Your task to perform on an android device: Open calendar and show me the third week of next month Image 0: 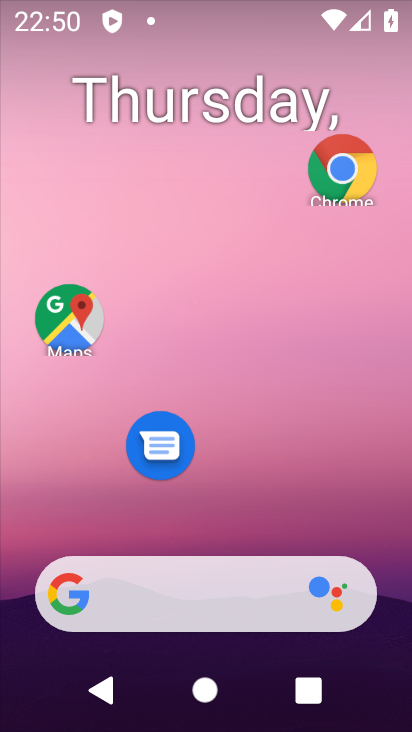
Step 0: drag from (214, 529) to (201, 129)
Your task to perform on an android device: Open calendar and show me the third week of next month Image 1: 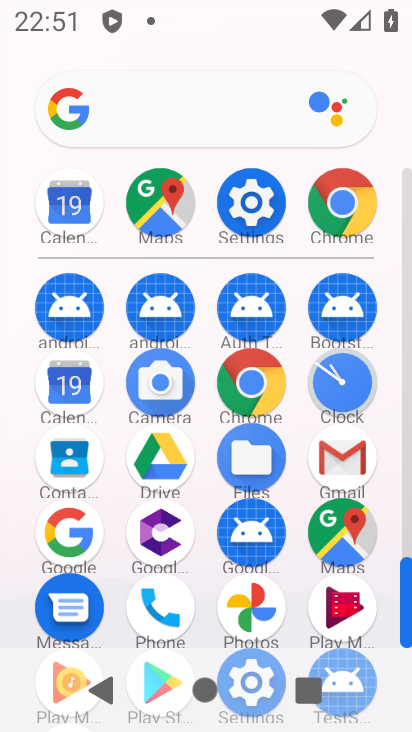
Step 1: click (69, 393)
Your task to perform on an android device: Open calendar and show me the third week of next month Image 2: 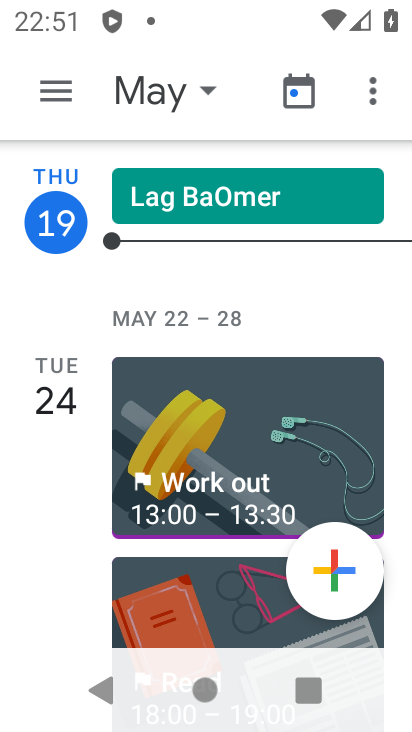
Step 2: drag from (248, 607) to (237, 232)
Your task to perform on an android device: Open calendar and show me the third week of next month Image 3: 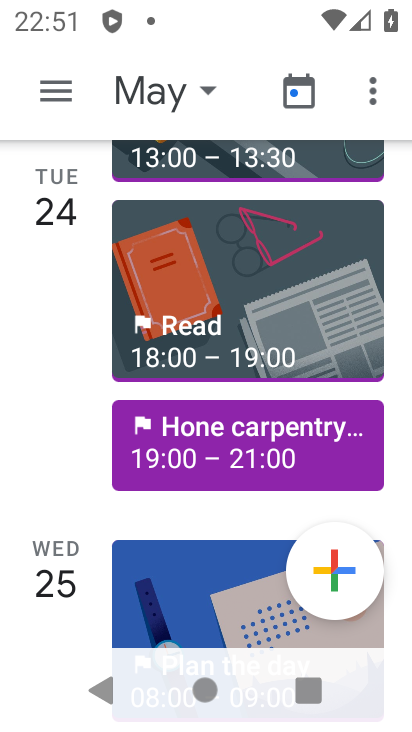
Step 3: drag from (230, 587) to (242, 81)
Your task to perform on an android device: Open calendar and show me the third week of next month Image 4: 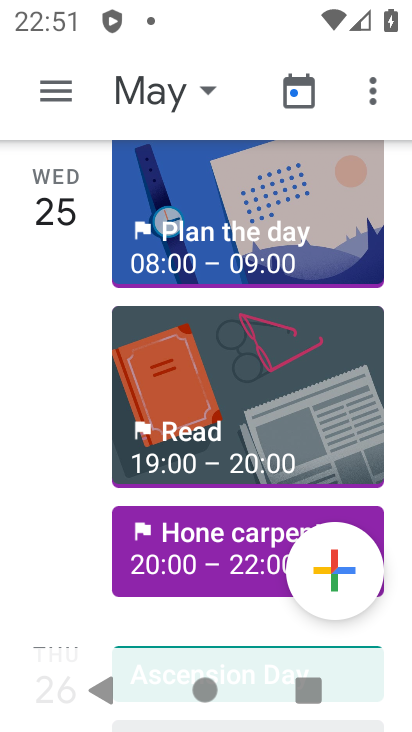
Step 4: click (190, 98)
Your task to perform on an android device: Open calendar and show me the third week of next month Image 5: 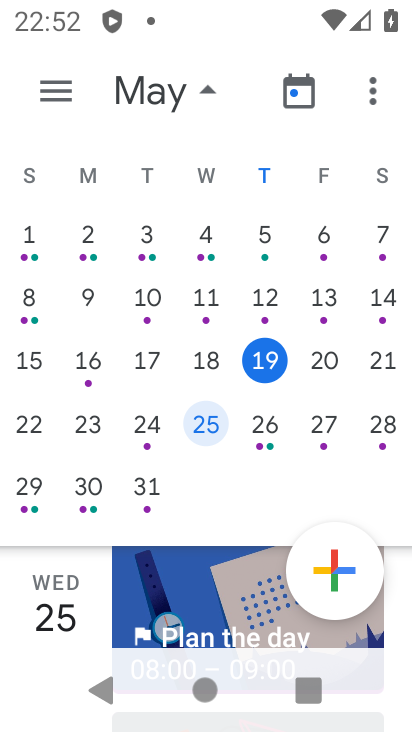
Step 5: drag from (389, 371) to (0, 386)
Your task to perform on an android device: Open calendar and show me the third week of next month Image 6: 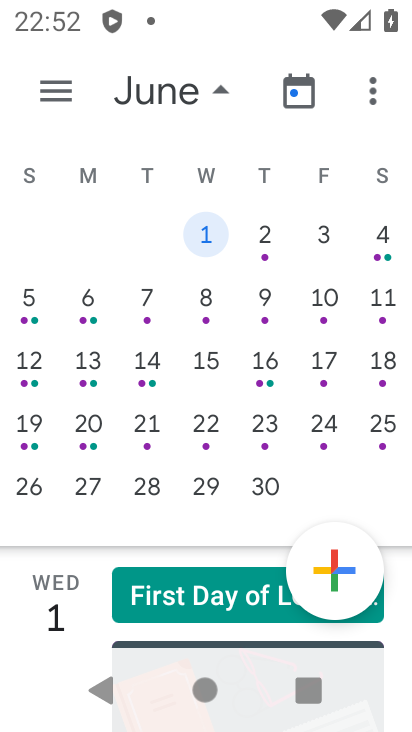
Step 6: click (276, 365)
Your task to perform on an android device: Open calendar and show me the third week of next month Image 7: 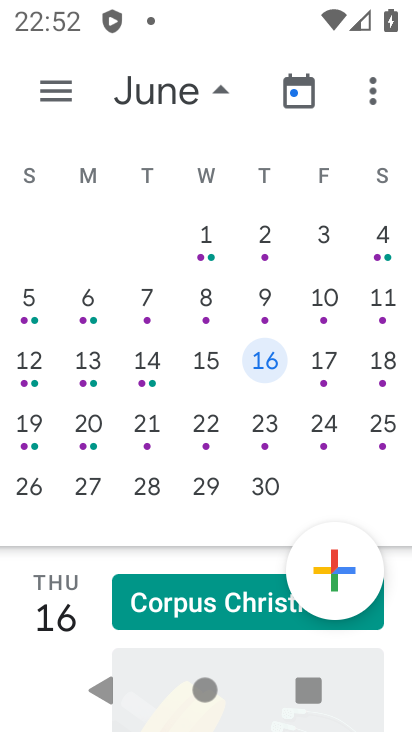
Step 7: task complete